Your task to perform on an android device: change keyboard looks Image 0: 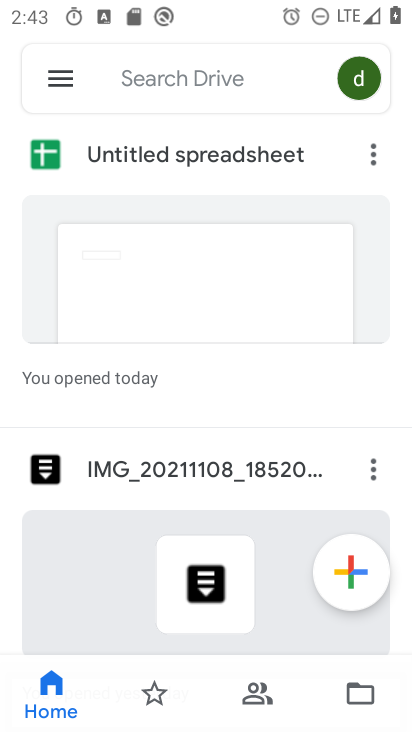
Step 0: press home button
Your task to perform on an android device: change keyboard looks Image 1: 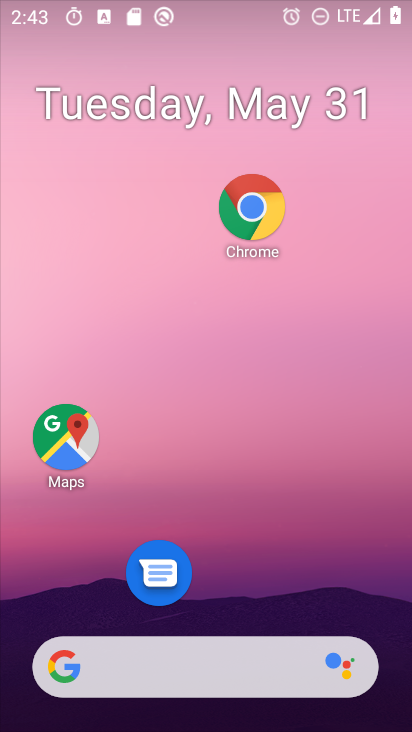
Step 1: drag from (217, 622) to (261, 107)
Your task to perform on an android device: change keyboard looks Image 2: 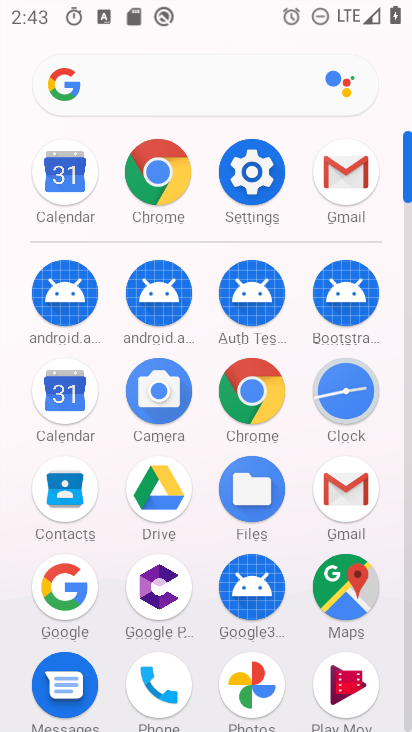
Step 2: click (268, 180)
Your task to perform on an android device: change keyboard looks Image 3: 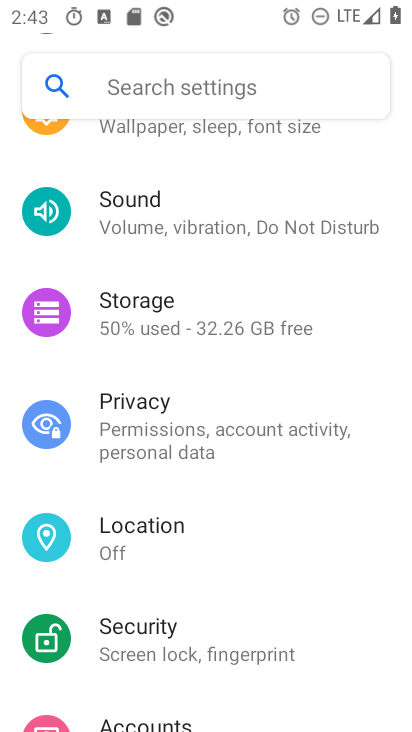
Step 3: drag from (239, 278) to (195, 675)
Your task to perform on an android device: change keyboard looks Image 4: 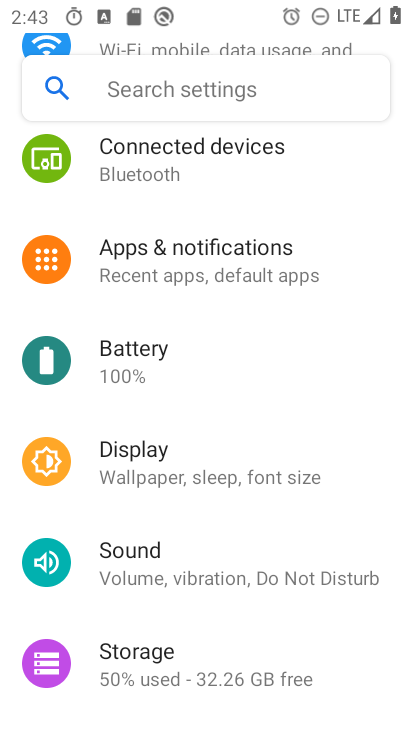
Step 4: drag from (218, 343) to (197, 669)
Your task to perform on an android device: change keyboard looks Image 5: 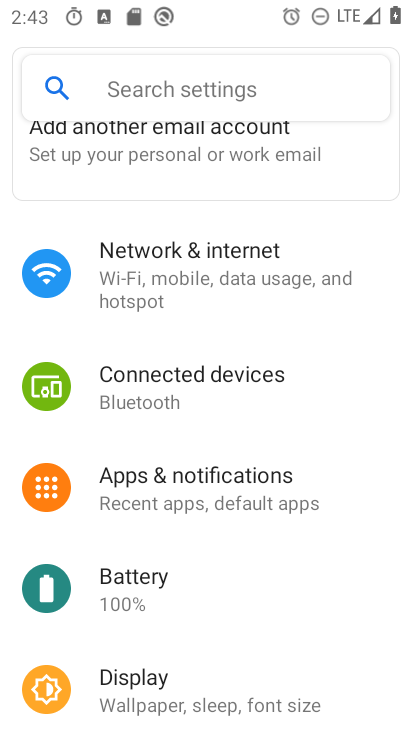
Step 5: drag from (244, 570) to (294, 266)
Your task to perform on an android device: change keyboard looks Image 6: 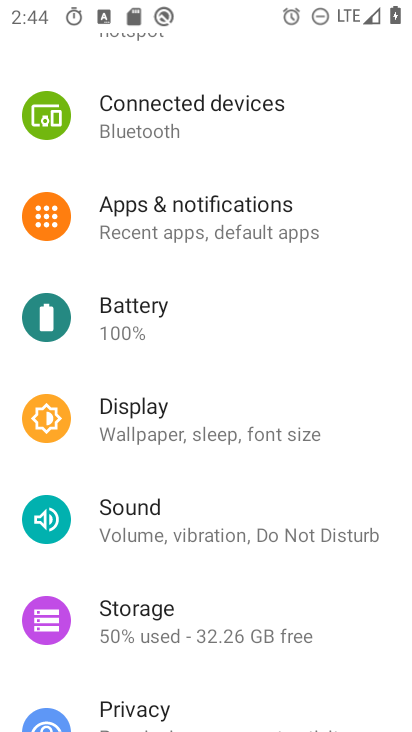
Step 6: drag from (262, 400) to (326, 129)
Your task to perform on an android device: change keyboard looks Image 7: 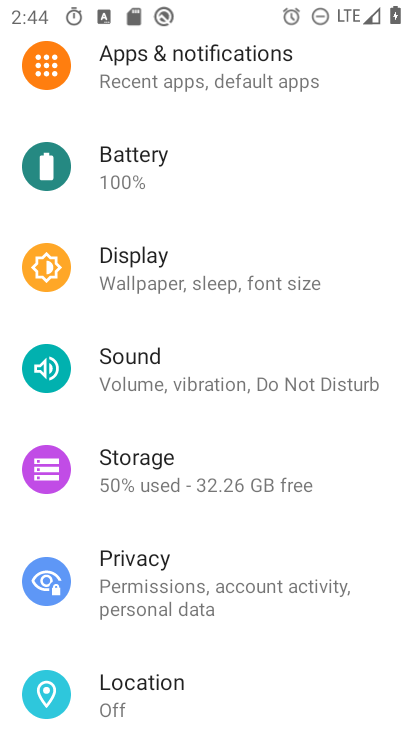
Step 7: drag from (201, 649) to (316, 177)
Your task to perform on an android device: change keyboard looks Image 8: 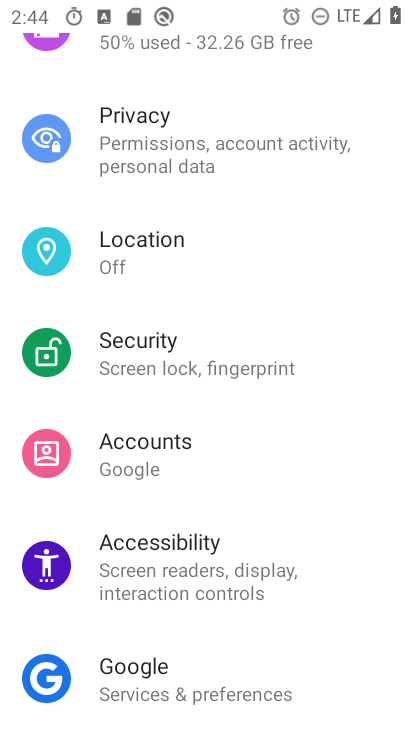
Step 8: drag from (196, 602) to (263, 242)
Your task to perform on an android device: change keyboard looks Image 9: 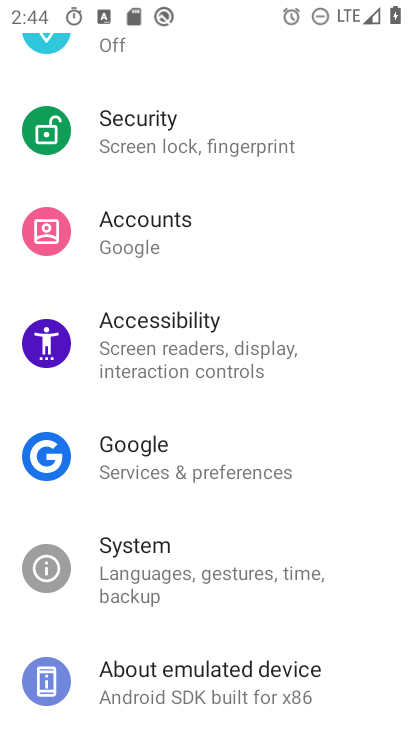
Step 9: click (230, 578)
Your task to perform on an android device: change keyboard looks Image 10: 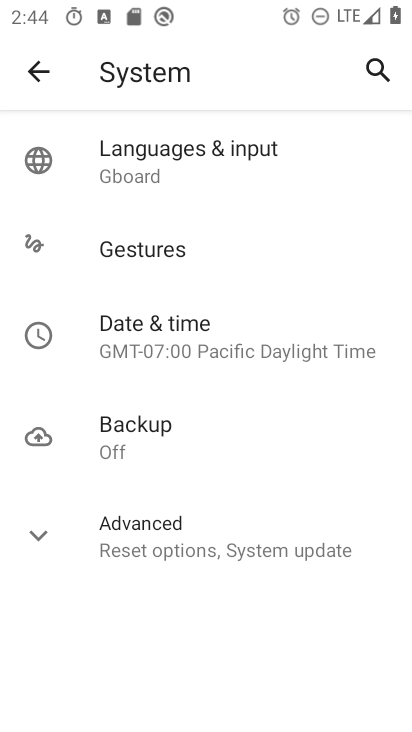
Step 10: click (243, 165)
Your task to perform on an android device: change keyboard looks Image 11: 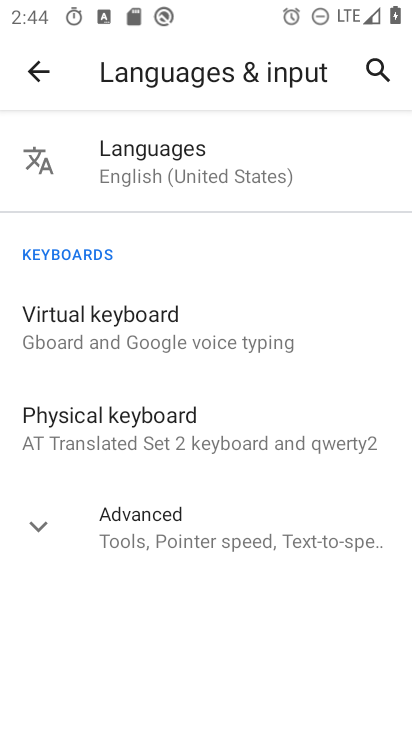
Step 11: click (237, 324)
Your task to perform on an android device: change keyboard looks Image 12: 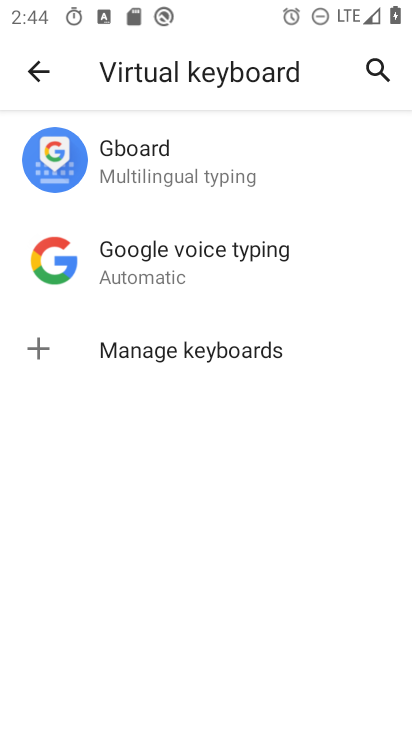
Step 12: click (215, 162)
Your task to perform on an android device: change keyboard looks Image 13: 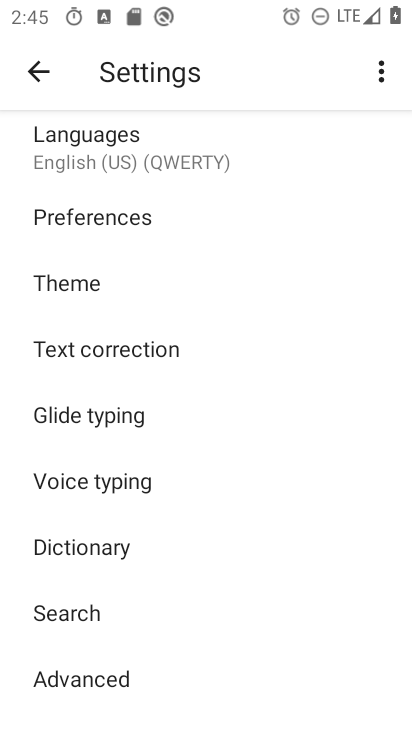
Step 13: click (91, 280)
Your task to perform on an android device: change keyboard looks Image 14: 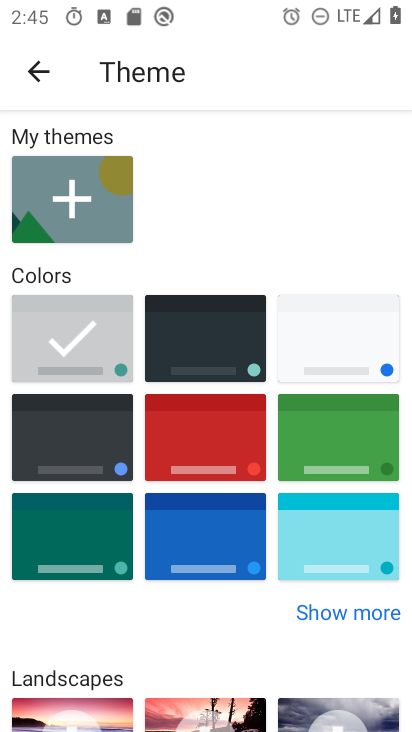
Step 14: click (362, 420)
Your task to perform on an android device: change keyboard looks Image 15: 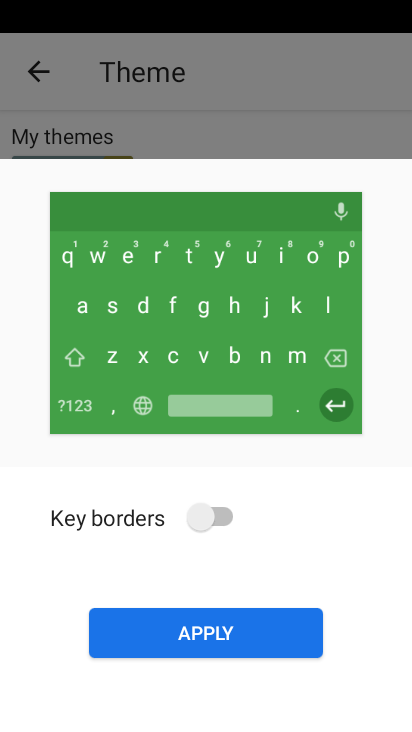
Step 15: click (205, 643)
Your task to perform on an android device: change keyboard looks Image 16: 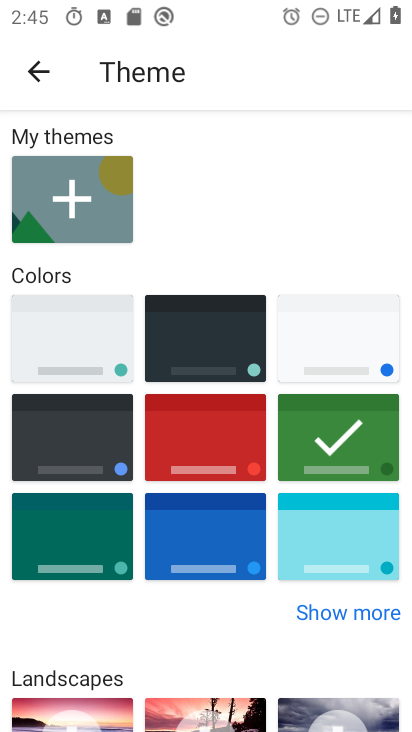
Step 16: task complete